Your task to perform on an android device: Open notification settings Image 0: 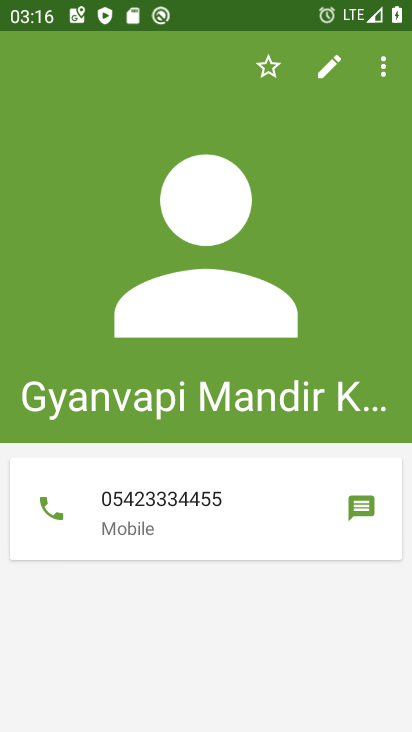
Step 0: press home button
Your task to perform on an android device: Open notification settings Image 1: 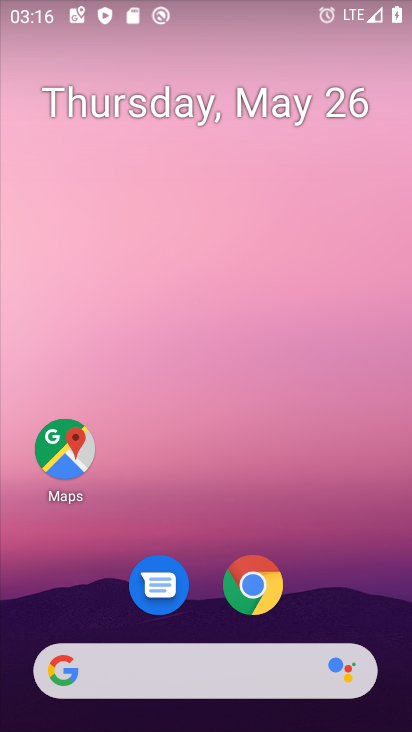
Step 1: drag from (246, 437) to (283, 40)
Your task to perform on an android device: Open notification settings Image 2: 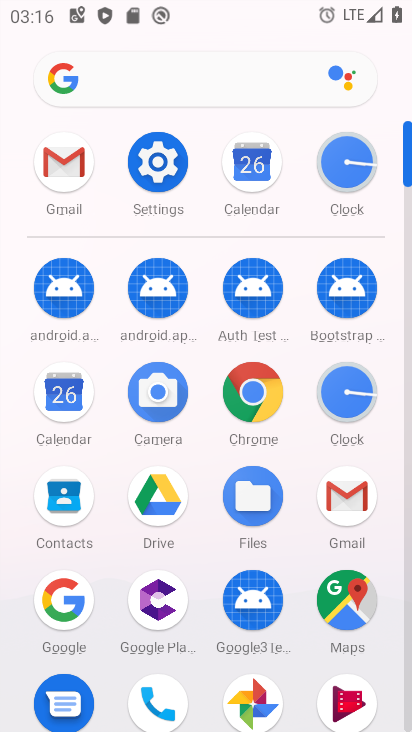
Step 2: click (172, 169)
Your task to perform on an android device: Open notification settings Image 3: 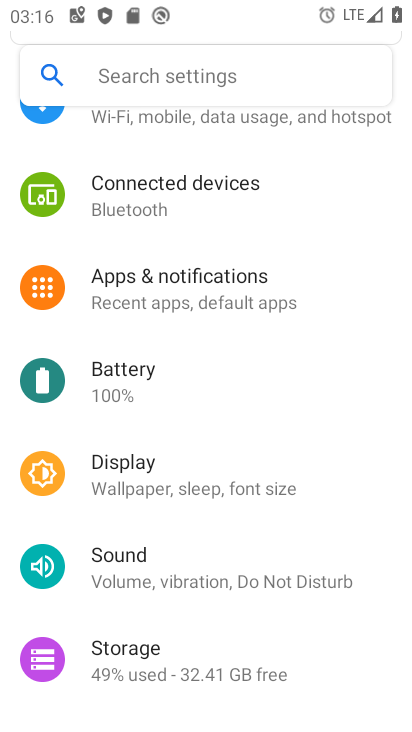
Step 3: click (206, 286)
Your task to perform on an android device: Open notification settings Image 4: 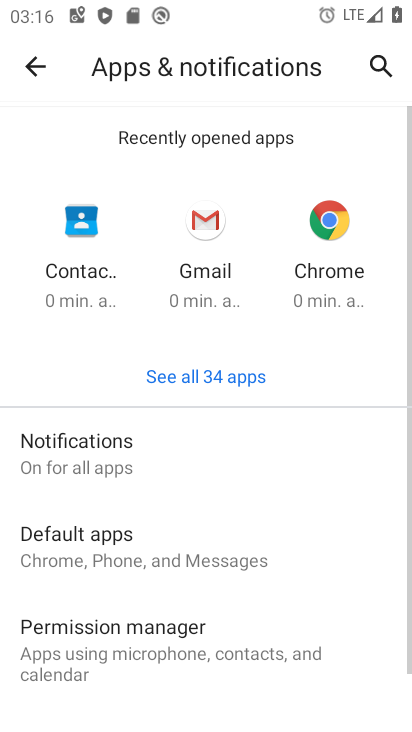
Step 4: click (184, 434)
Your task to perform on an android device: Open notification settings Image 5: 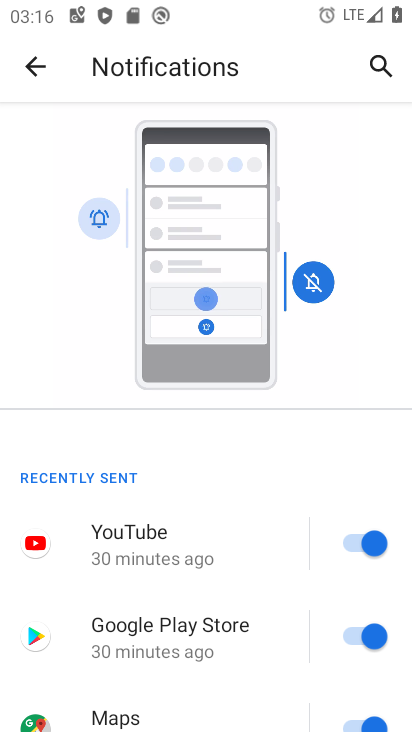
Step 5: task complete